Your task to perform on an android device: change timer sound Image 0: 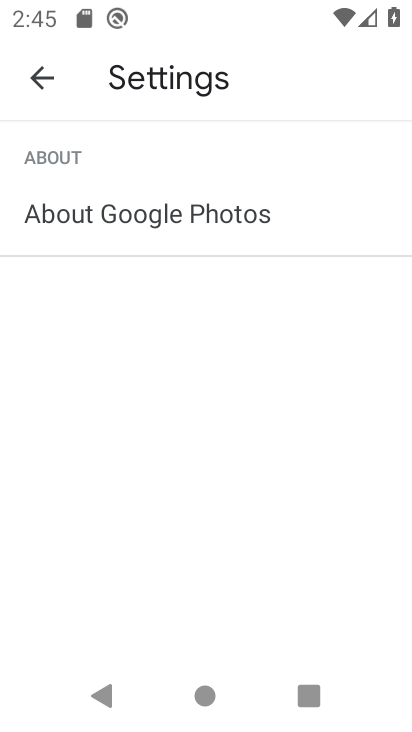
Step 0: press home button
Your task to perform on an android device: change timer sound Image 1: 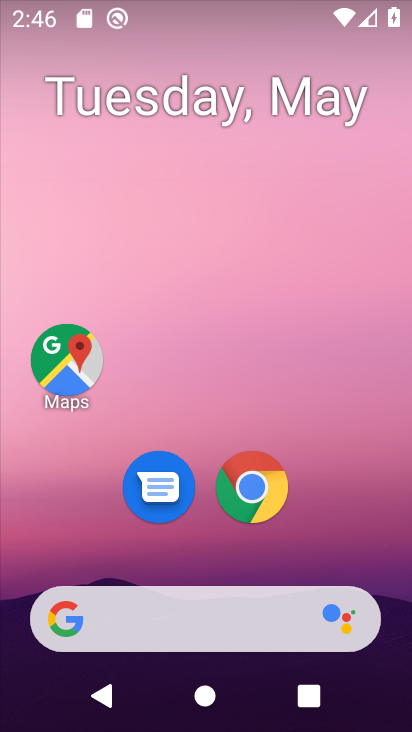
Step 1: drag from (391, 639) to (387, 186)
Your task to perform on an android device: change timer sound Image 2: 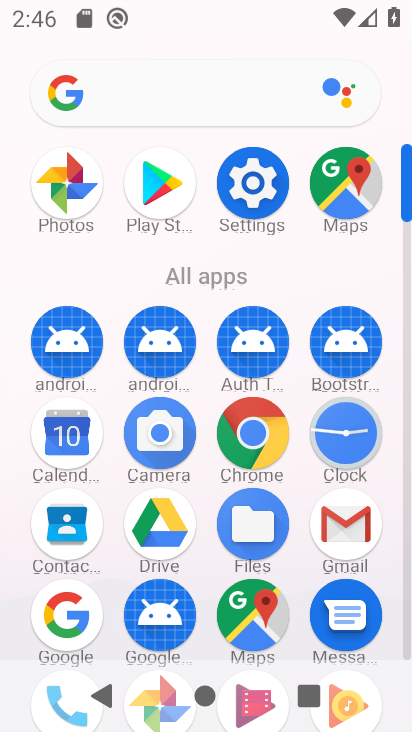
Step 2: click (355, 463)
Your task to perform on an android device: change timer sound Image 3: 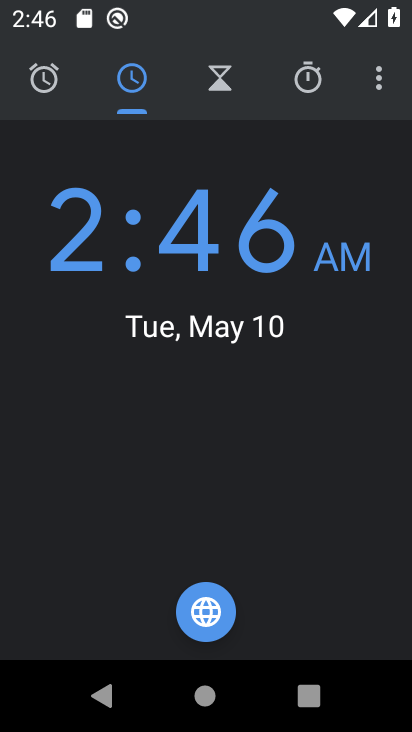
Step 3: click (307, 74)
Your task to perform on an android device: change timer sound Image 4: 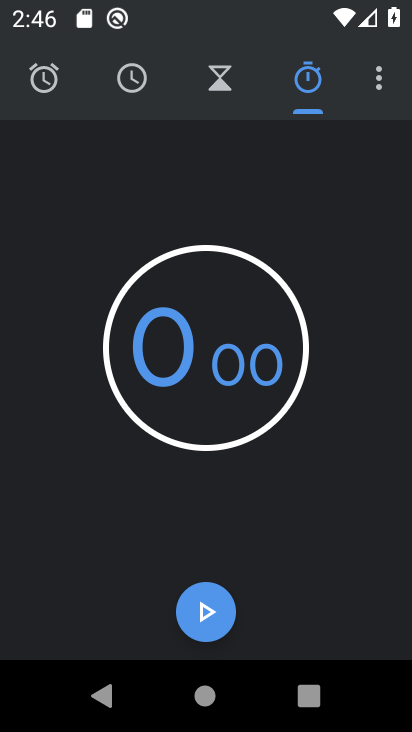
Step 4: click (204, 617)
Your task to perform on an android device: change timer sound Image 5: 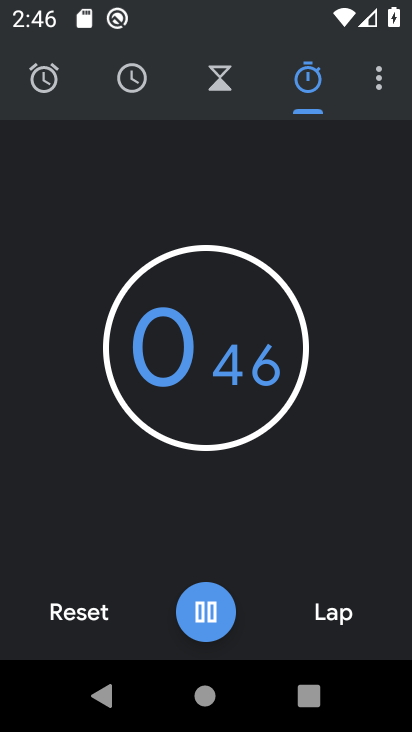
Step 5: click (204, 614)
Your task to perform on an android device: change timer sound Image 6: 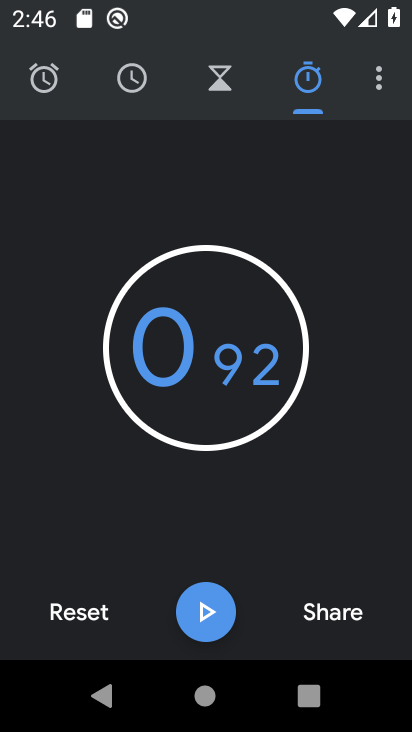
Step 6: task complete